Your task to perform on an android device: turn off location history Image 0: 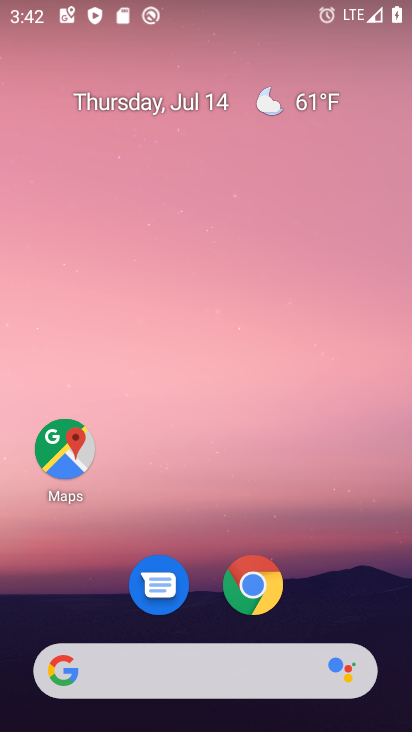
Step 0: drag from (330, 558) to (353, 0)
Your task to perform on an android device: turn off location history Image 1: 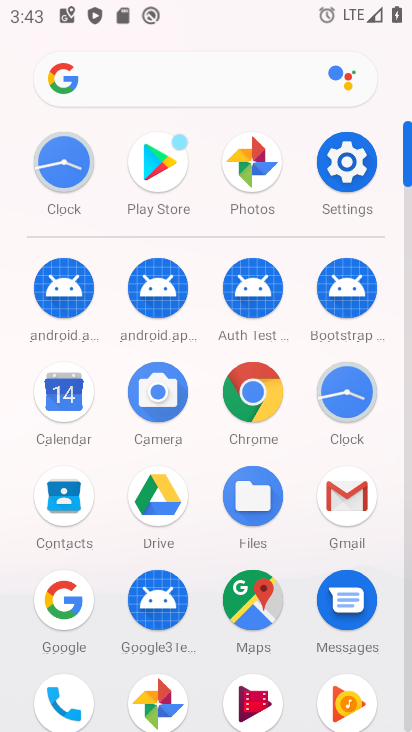
Step 1: click (331, 164)
Your task to perform on an android device: turn off location history Image 2: 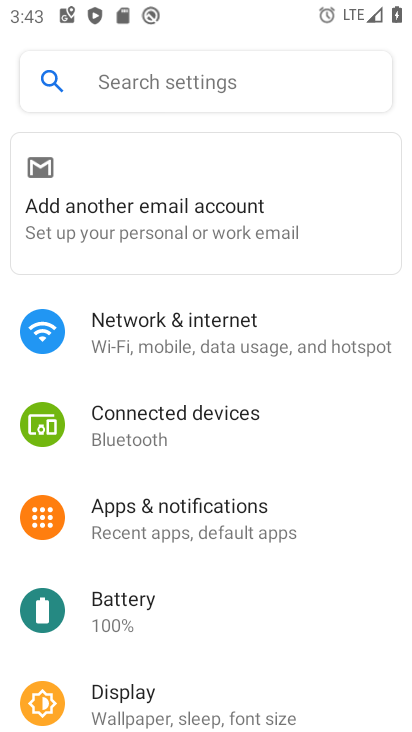
Step 2: drag from (223, 581) to (250, 95)
Your task to perform on an android device: turn off location history Image 3: 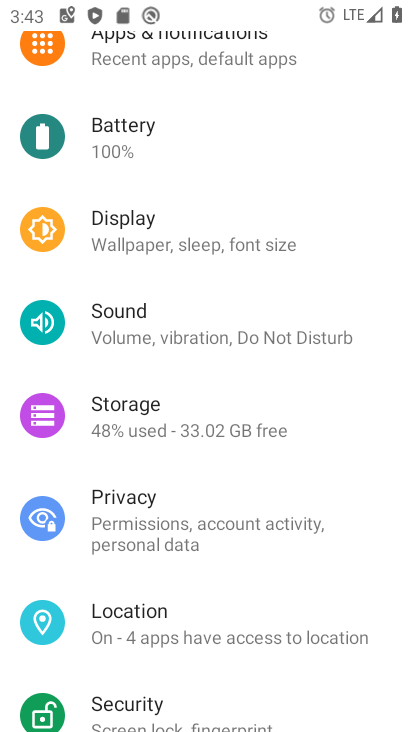
Step 3: click (185, 628)
Your task to perform on an android device: turn off location history Image 4: 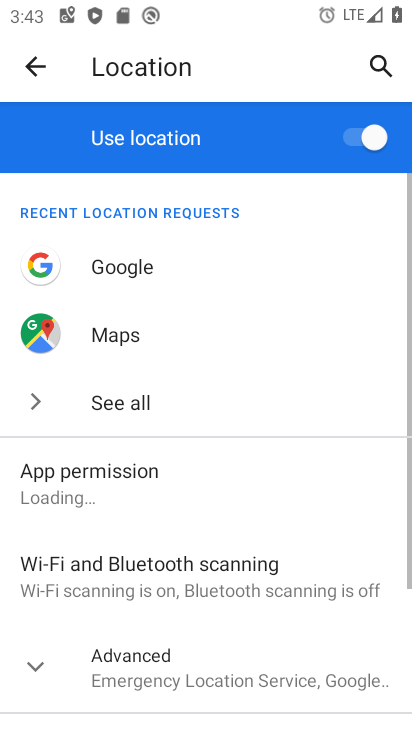
Step 4: drag from (269, 529) to (280, 275)
Your task to perform on an android device: turn off location history Image 5: 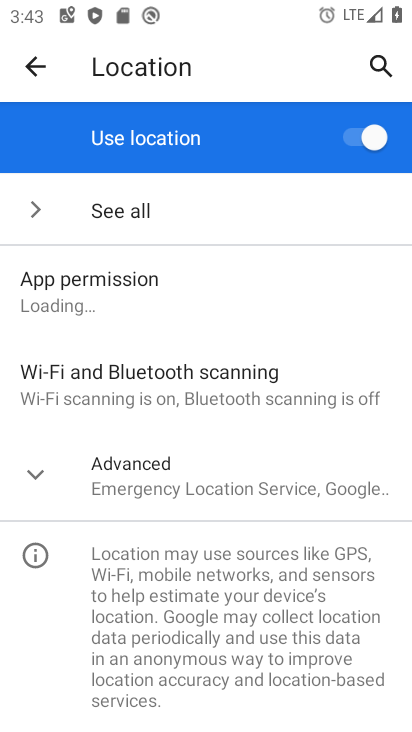
Step 5: click (33, 469)
Your task to perform on an android device: turn off location history Image 6: 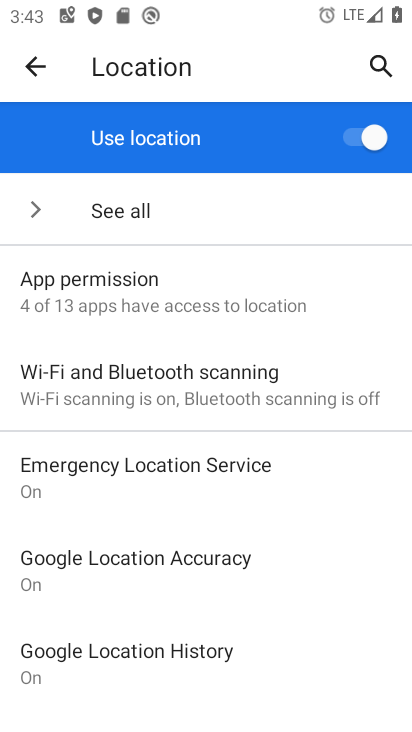
Step 6: click (148, 653)
Your task to perform on an android device: turn off location history Image 7: 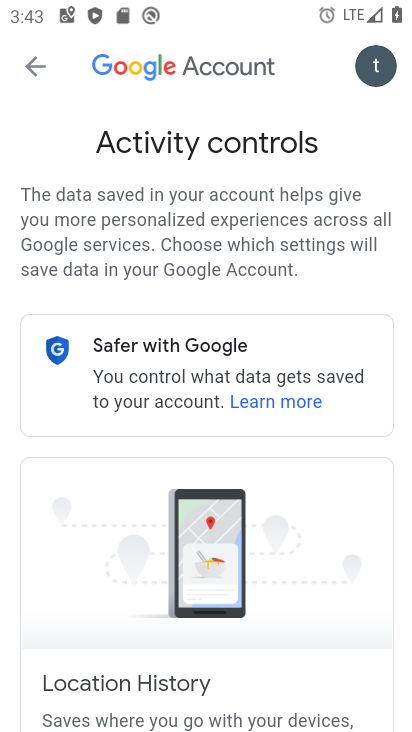
Step 7: drag from (296, 555) to (399, 290)
Your task to perform on an android device: turn off location history Image 8: 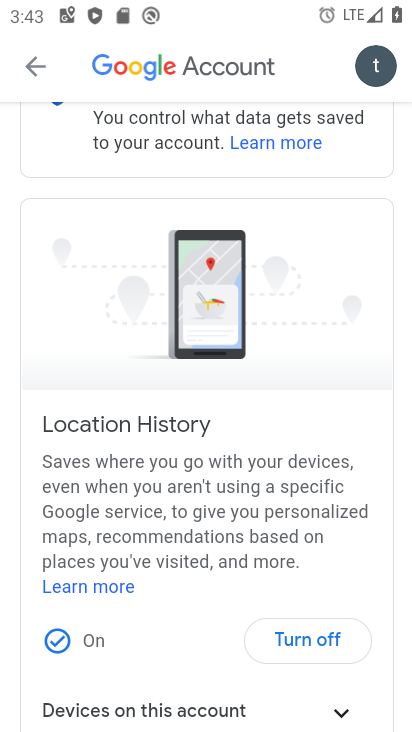
Step 8: click (299, 629)
Your task to perform on an android device: turn off location history Image 9: 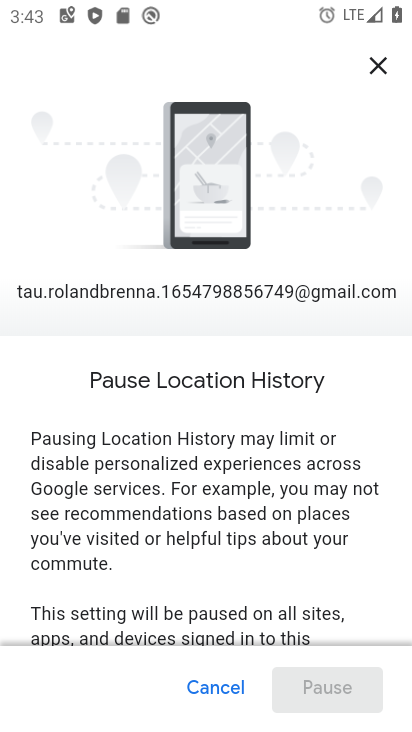
Step 9: drag from (288, 566) to (385, 37)
Your task to perform on an android device: turn off location history Image 10: 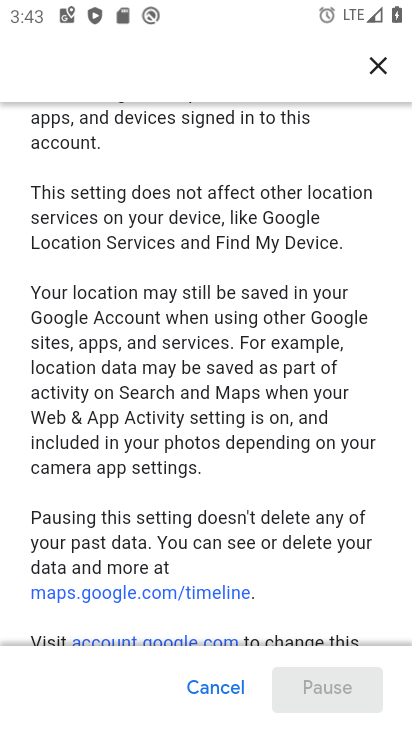
Step 10: drag from (282, 514) to (275, 218)
Your task to perform on an android device: turn off location history Image 11: 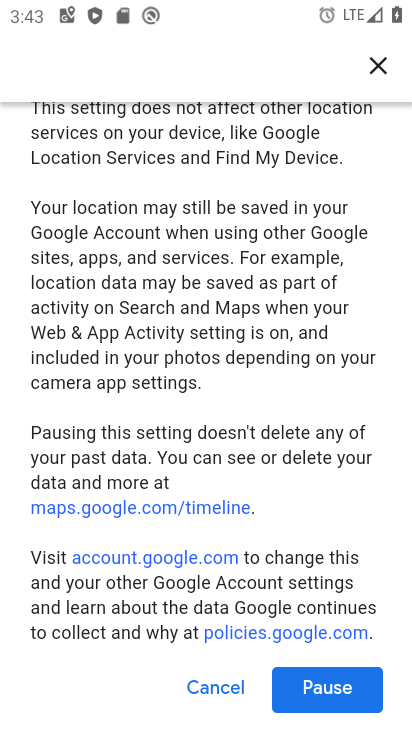
Step 11: click (309, 699)
Your task to perform on an android device: turn off location history Image 12: 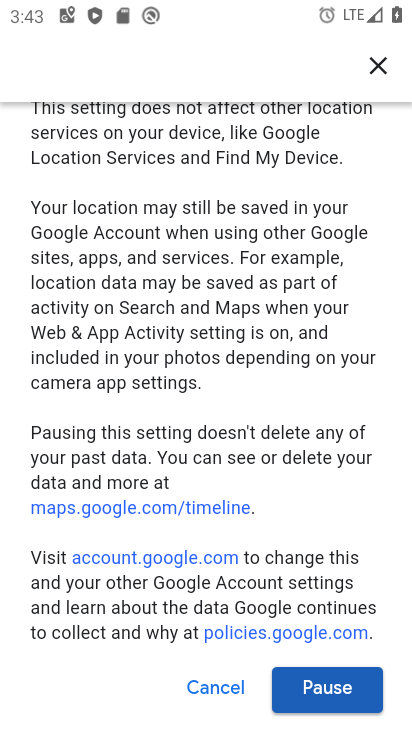
Step 12: click (309, 697)
Your task to perform on an android device: turn off location history Image 13: 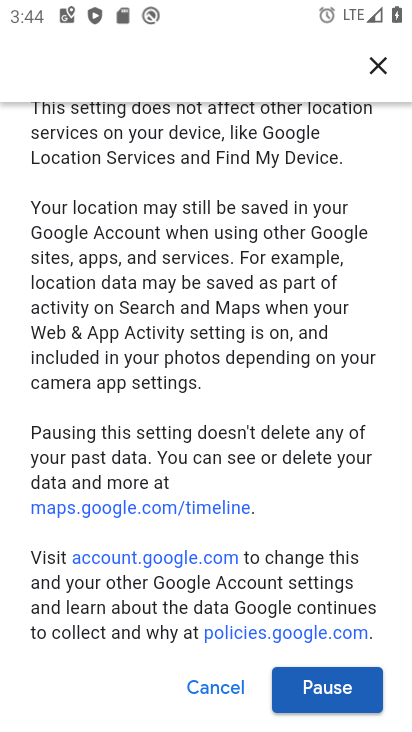
Step 13: click (353, 690)
Your task to perform on an android device: turn off location history Image 14: 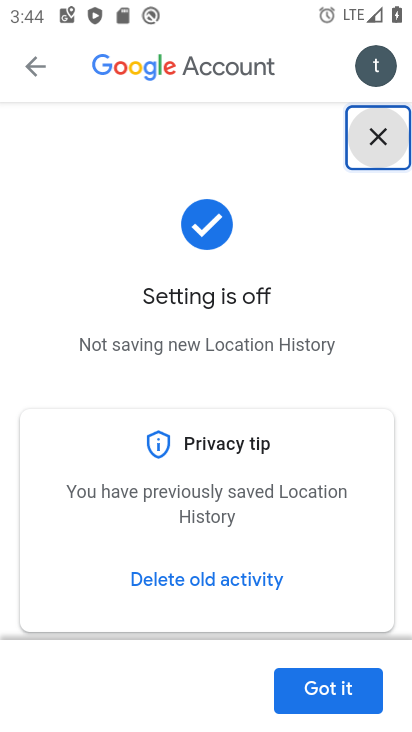
Step 14: click (353, 688)
Your task to perform on an android device: turn off location history Image 15: 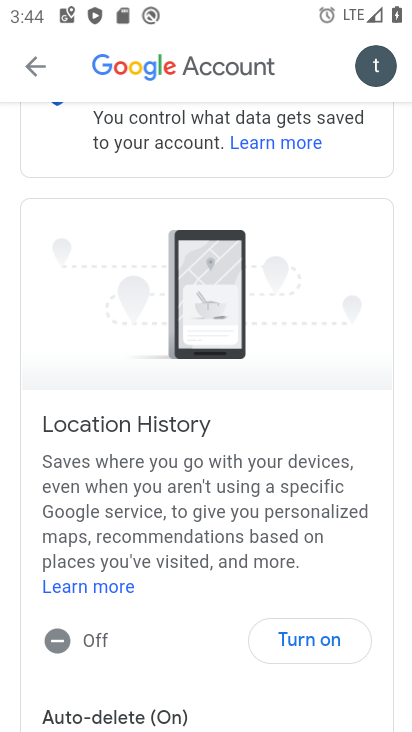
Step 15: task complete